Your task to perform on an android device: Open Wikipedia Image 0: 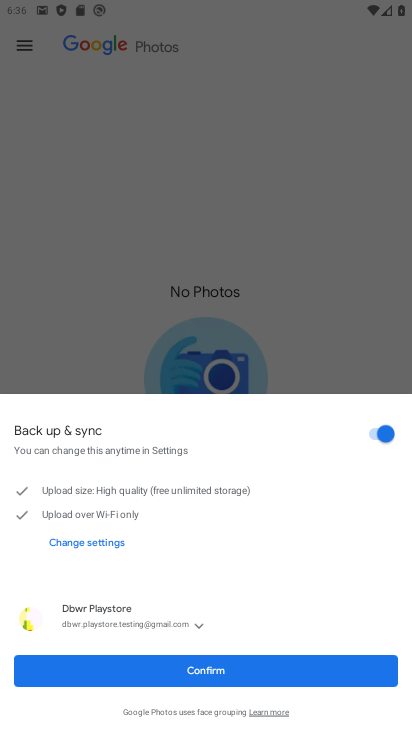
Step 0: press home button
Your task to perform on an android device: Open Wikipedia Image 1: 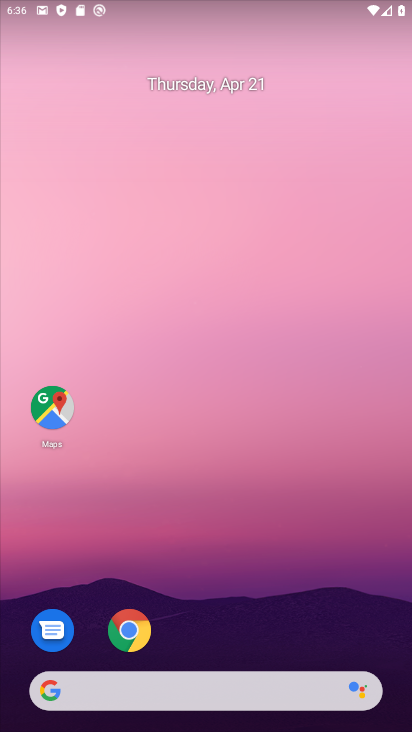
Step 1: click (100, 633)
Your task to perform on an android device: Open Wikipedia Image 2: 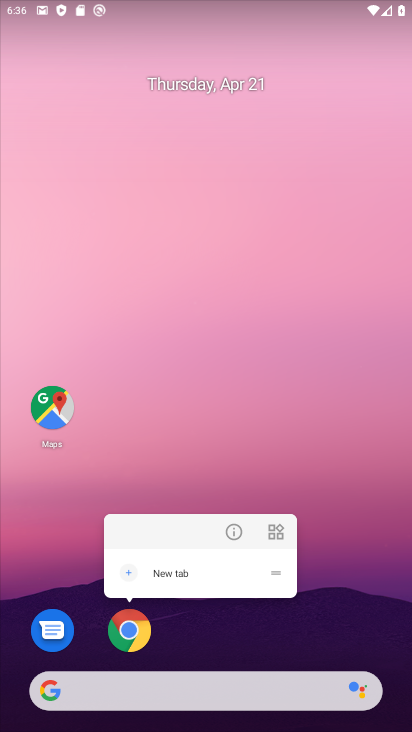
Step 2: click (118, 610)
Your task to perform on an android device: Open Wikipedia Image 3: 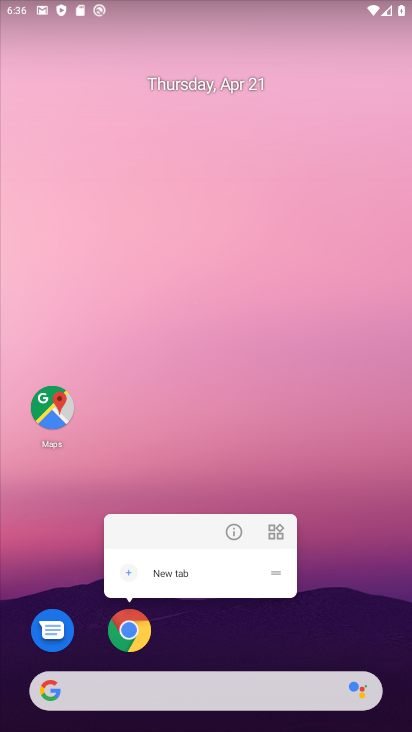
Step 3: click (168, 660)
Your task to perform on an android device: Open Wikipedia Image 4: 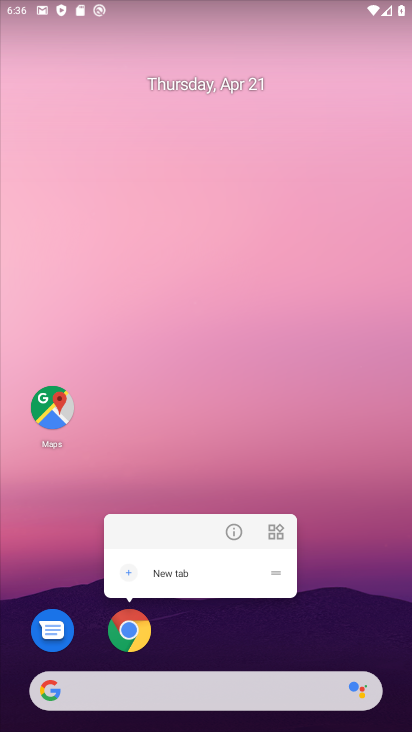
Step 4: click (120, 632)
Your task to perform on an android device: Open Wikipedia Image 5: 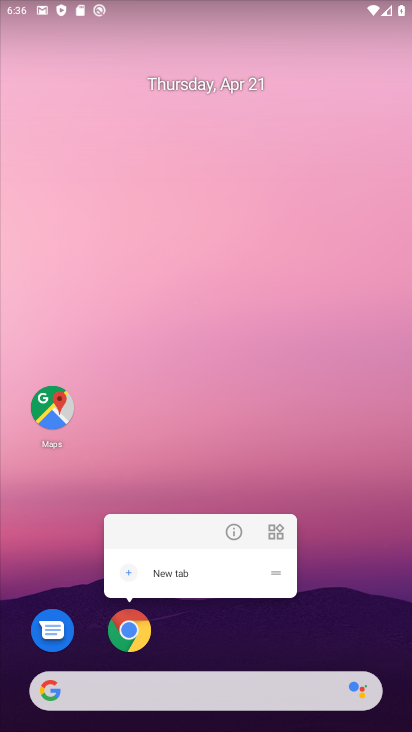
Step 5: click (145, 676)
Your task to perform on an android device: Open Wikipedia Image 6: 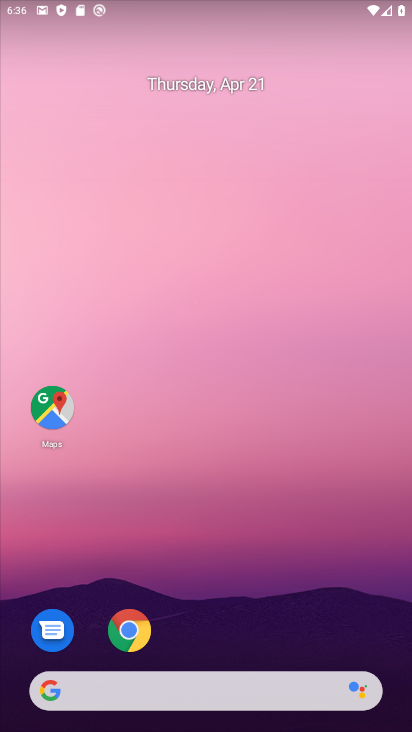
Step 6: click (141, 664)
Your task to perform on an android device: Open Wikipedia Image 7: 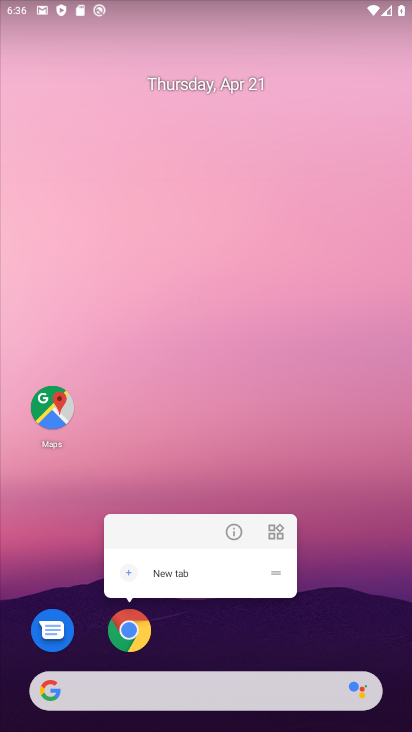
Step 7: click (125, 635)
Your task to perform on an android device: Open Wikipedia Image 8: 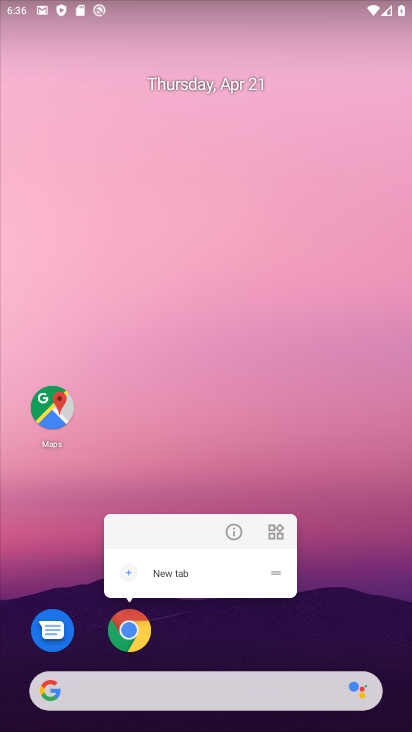
Step 8: click (150, 568)
Your task to perform on an android device: Open Wikipedia Image 9: 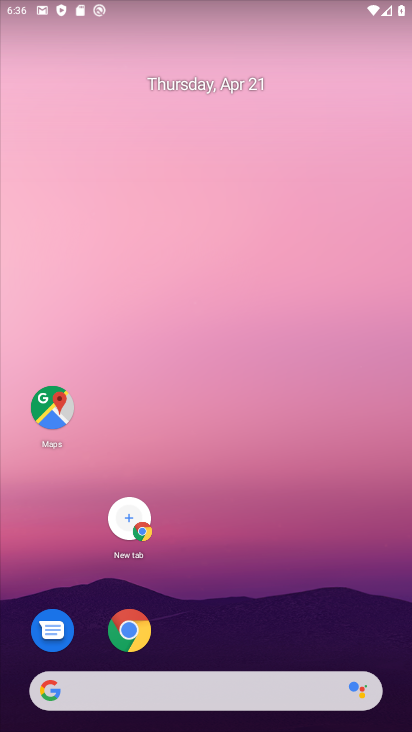
Step 9: click (123, 648)
Your task to perform on an android device: Open Wikipedia Image 10: 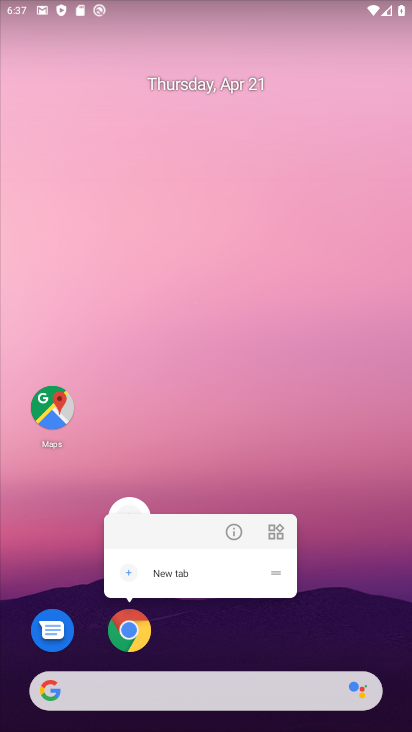
Step 10: click (167, 567)
Your task to perform on an android device: Open Wikipedia Image 11: 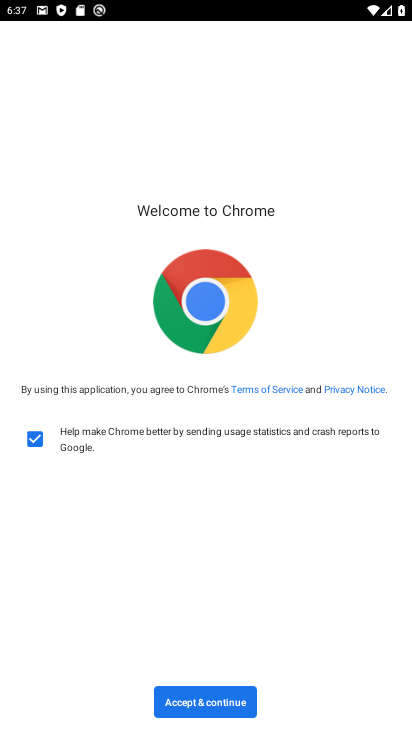
Step 11: click (187, 691)
Your task to perform on an android device: Open Wikipedia Image 12: 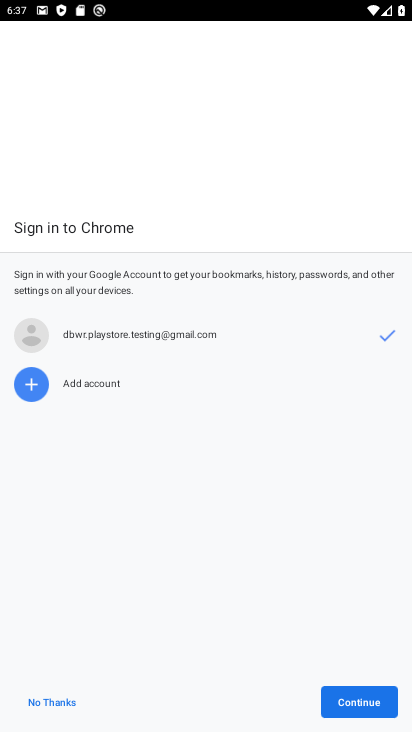
Step 12: click (365, 695)
Your task to perform on an android device: Open Wikipedia Image 13: 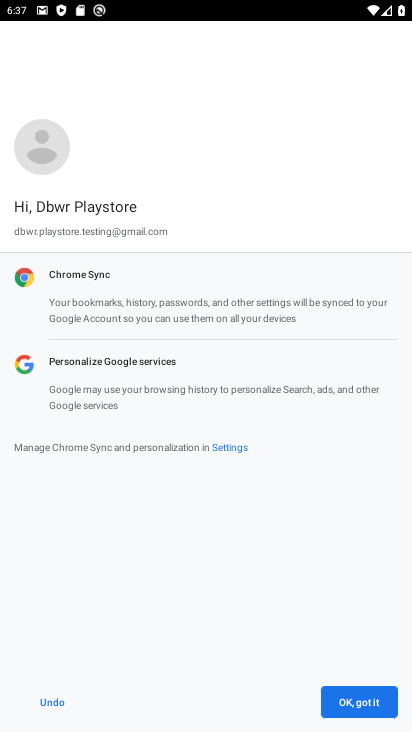
Step 13: click (362, 711)
Your task to perform on an android device: Open Wikipedia Image 14: 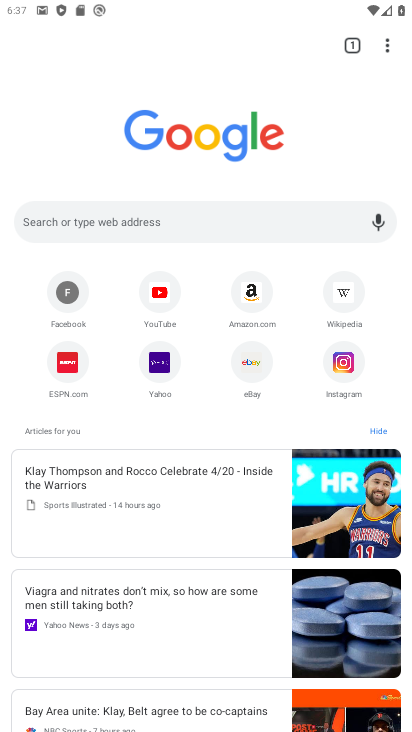
Step 14: click (232, 229)
Your task to perform on an android device: Open Wikipedia Image 15: 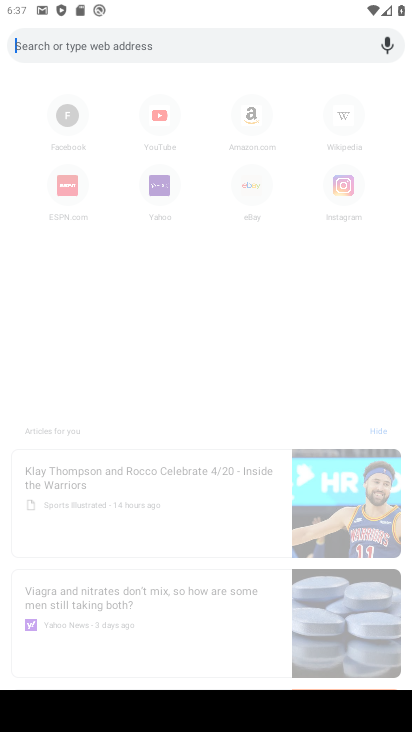
Step 15: type "wikipedia"
Your task to perform on an android device: Open Wikipedia Image 16: 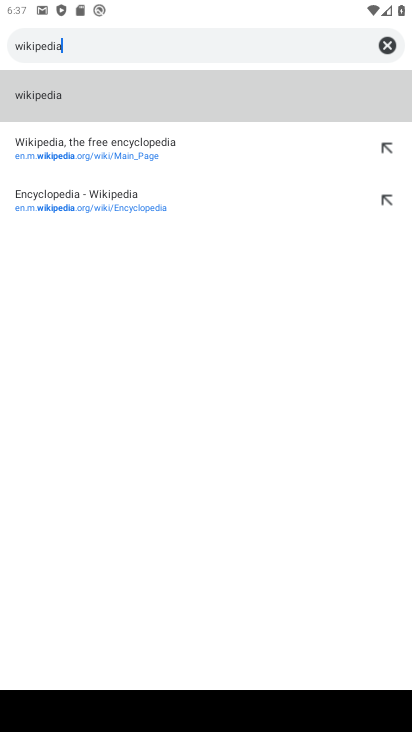
Step 16: click (72, 148)
Your task to perform on an android device: Open Wikipedia Image 17: 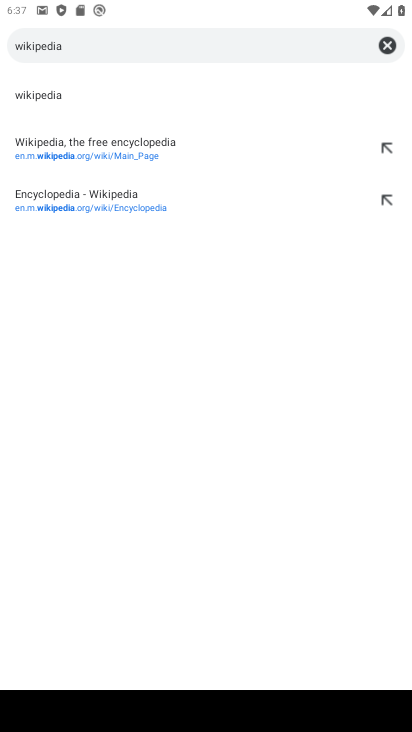
Step 17: click (94, 202)
Your task to perform on an android device: Open Wikipedia Image 18: 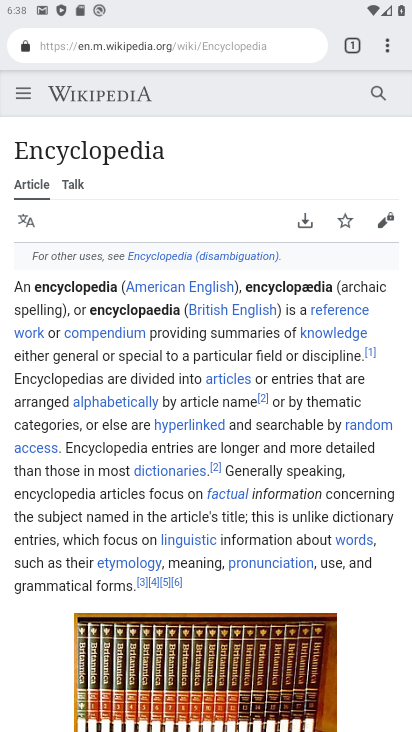
Step 18: task complete